Your task to perform on an android device: What's the weather? Image 0: 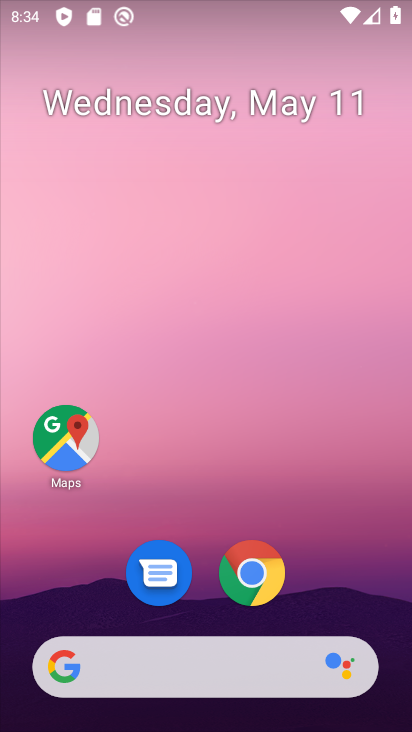
Step 0: click (261, 658)
Your task to perform on an android device: What's the weather? Image 1: 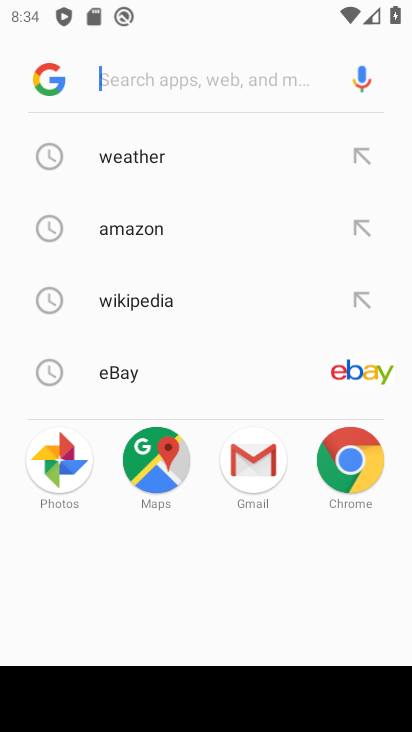
Step 1: click (230, 171)
Your task to perform on an android device: What's the weather? Image 2: 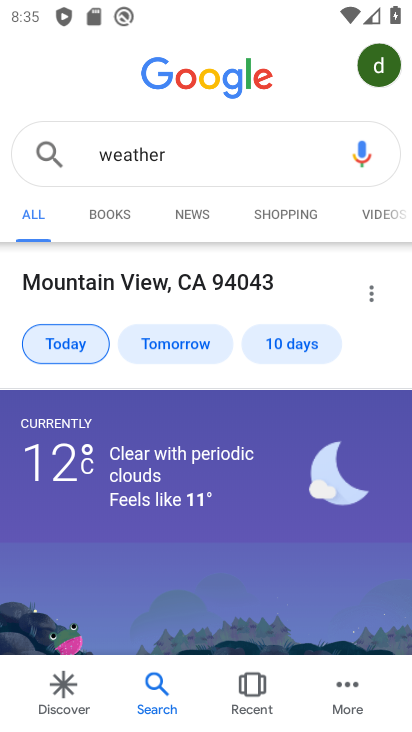
Step 2: task complete